Your task to perform on an android device: Open the calendar and show me this week's events Image 0: 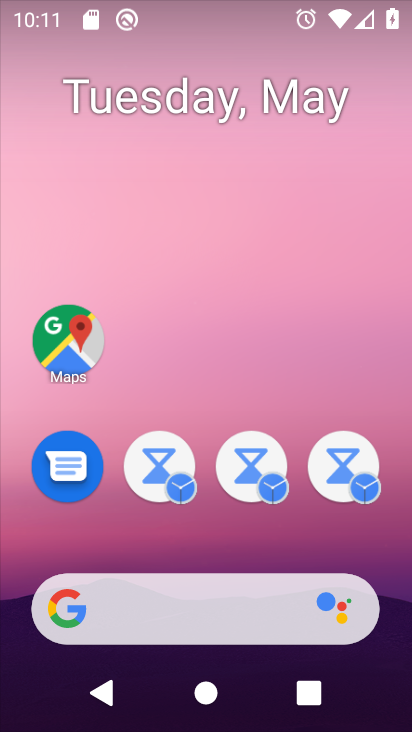
Step 0: click (229, 159)
Your task to perform on an android device: Open the calendar and show me this week's events Image 1: 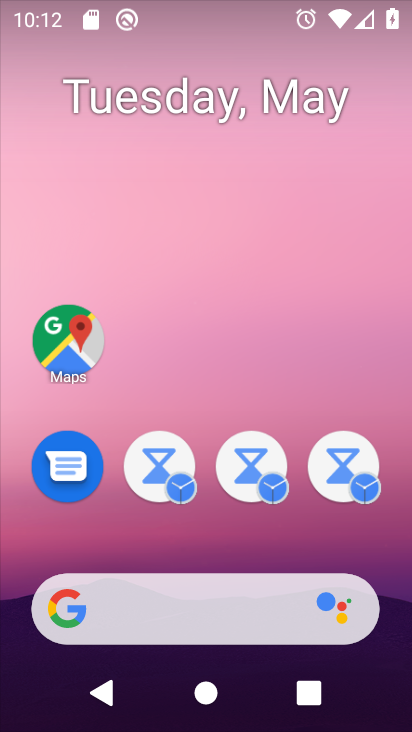
Step 1: drag from (354, 691) to (254, 217)
Your task to perform on an android device: Open the calendar and show me this week's events Image 2: 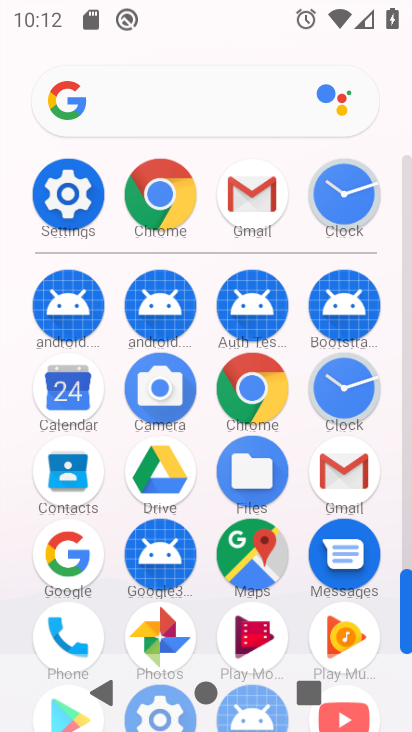
Step 2: click (68, 394)
Your task to perform on an android device: Open the calendar and show me this week's events Image 3: 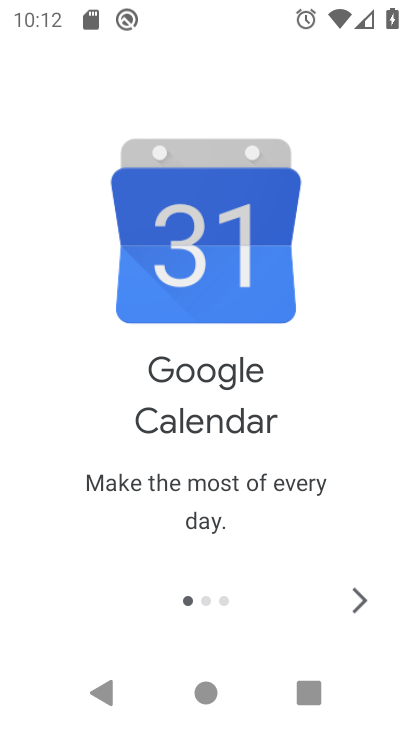
Step 3: click (349, 591)
Your task to perform on an android device: Open the calendar and show me this week's events Image 4: 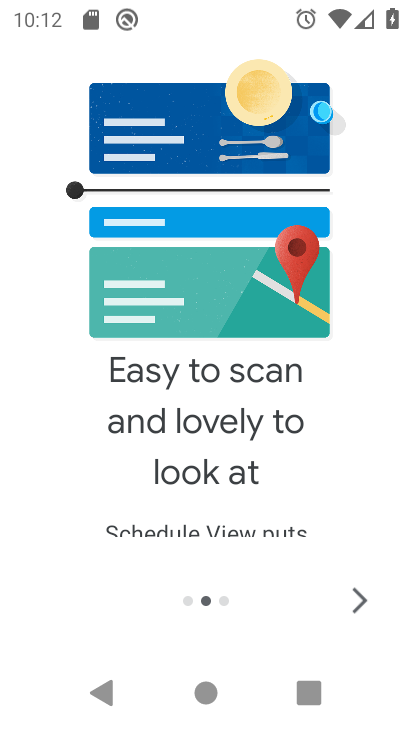
Step 4: click (352, 600)
Your task to perform on an android device: Open the calendar and show me this week's events Image 5: 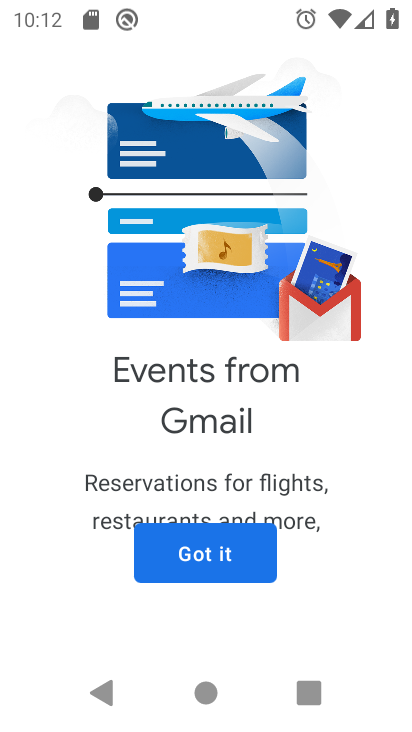
Step 5: click (215, 553)
Your task to perform on an android device: Open the calendar and show me this week's events Image 6: 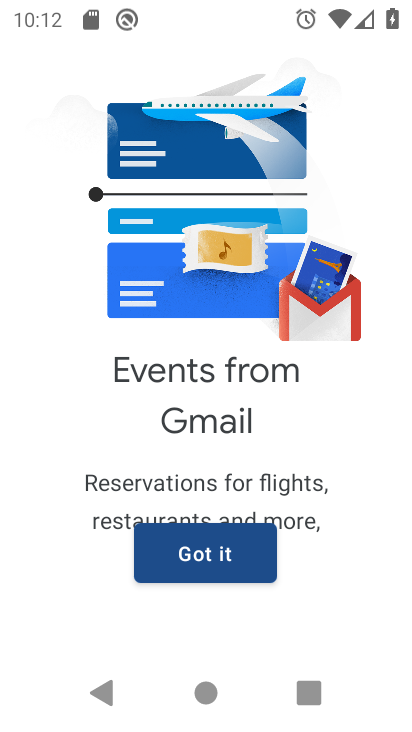
Step 6: click (219, 555)
Your task to perform on an android device: Open the calendar and show me this week's events Image 7: 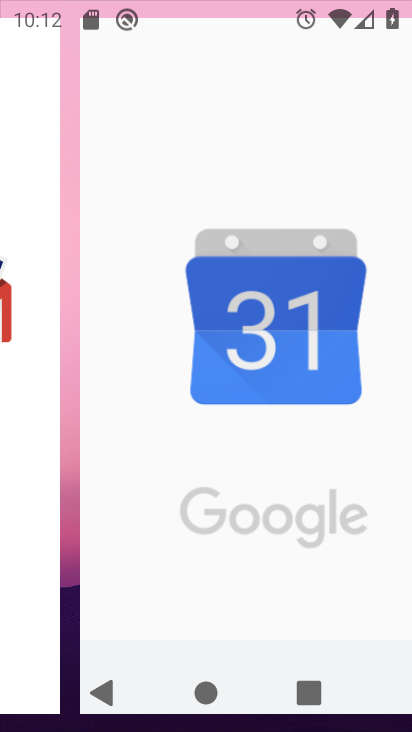
Step 7: click (229, 555)
Your task to perform on an android device: Open the calendar and show me this week's events Image 8: 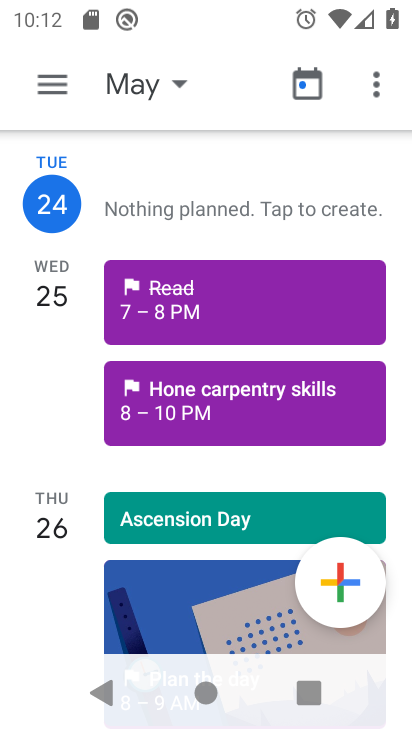
Step 8: task complete